Your task to perform on an android device: set an alarm Image 0: 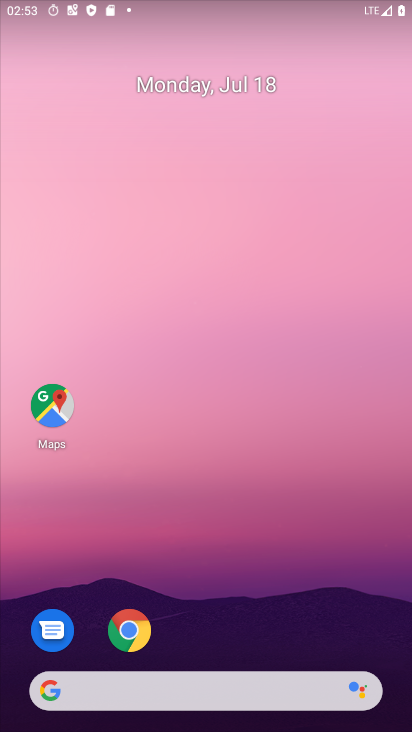
Step 0: drag from (224, 651) to (256, 131)
Your task to perform on an android device: set an alarm Image 1: 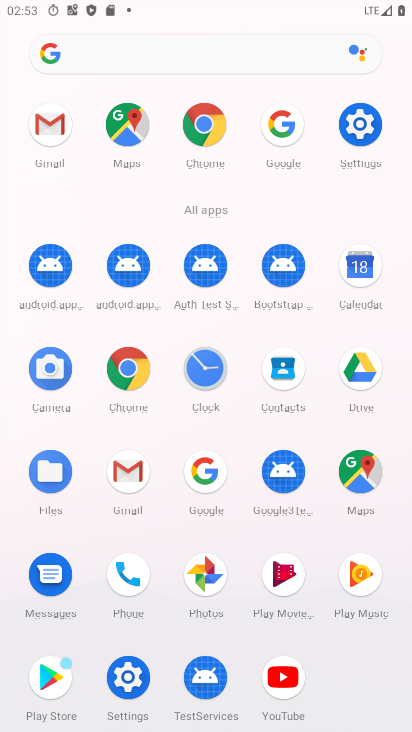
Step 1: click (208, 373)
Your task to perform on an android device: set an alarm Image 2: 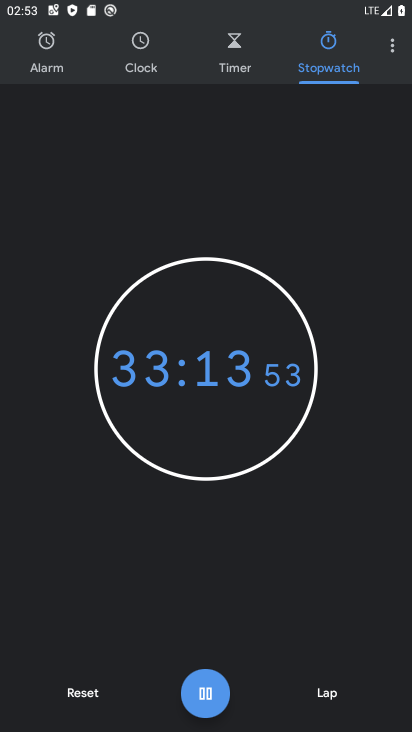
Step 2: click (54, 81)
Your task to perform on an android device: set an alarm Image 3: 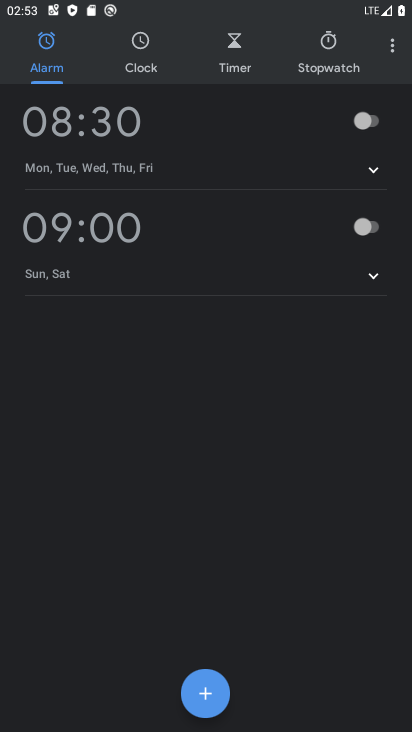
Step 3: click (380, 122)
Your task to perform on an android device: set an alarm Image 4: 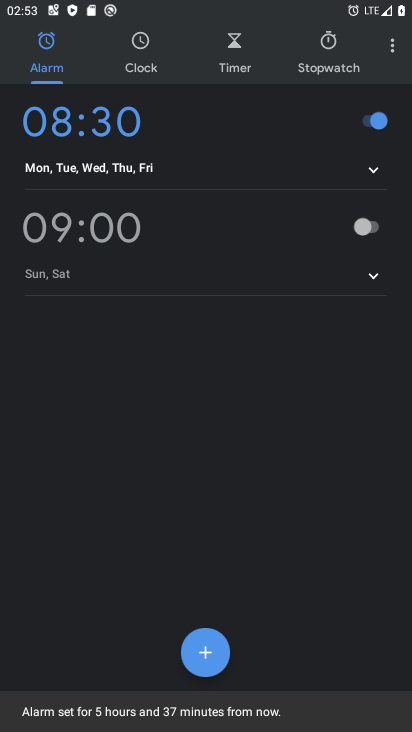
Step 4: task complete